Your task to perform on an android device: Do I have any events this weekend? Image 0: 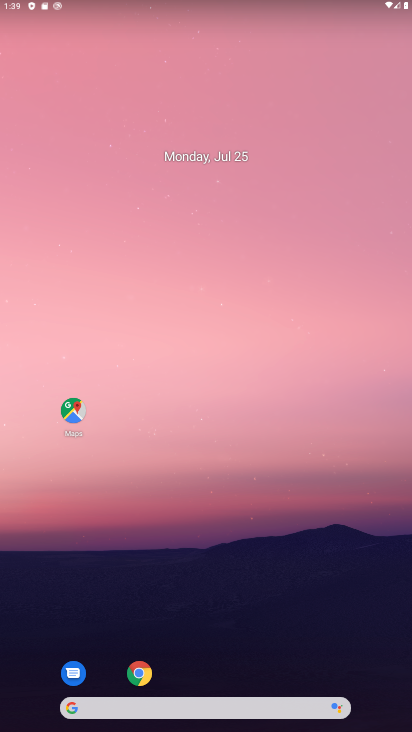
Step 0: click (219, 160)
Your task to perform on an android device: Do I have any events this weekend? Image 1: 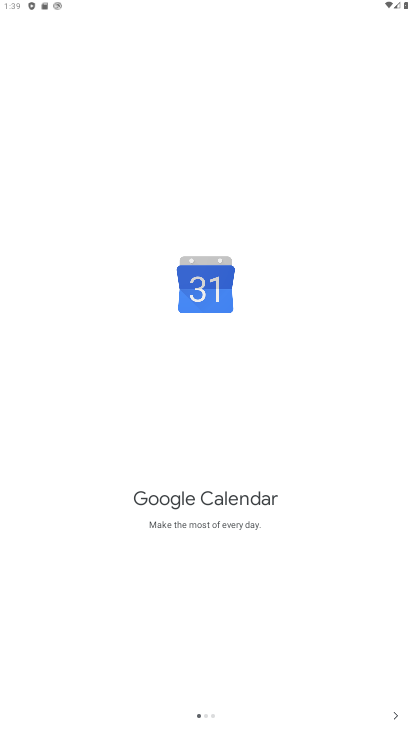
Step 1: click (392, 712)
Your task to perform on an android device: Do I have any events this weekend? Image 2: 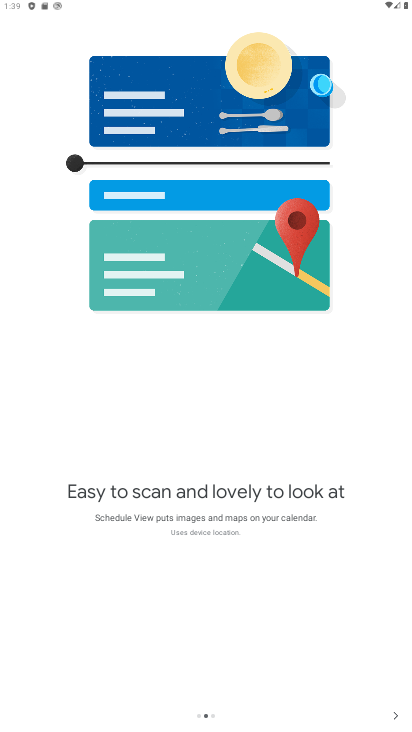
Step 2: click (392, 712)
Your task to perform on an android device: Do I have any events this weekend? Image 3: 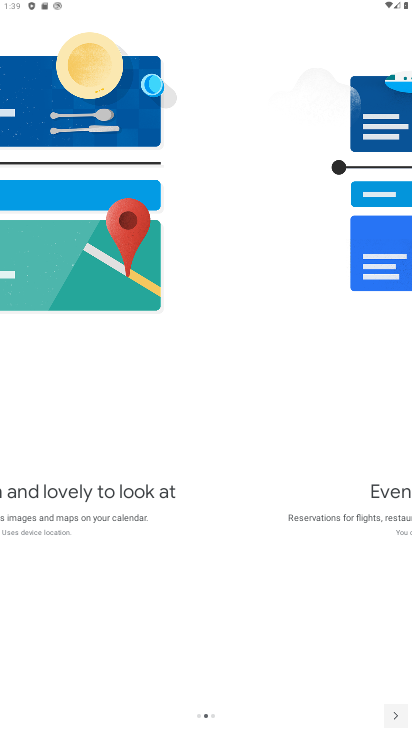
Step 3: click (392, 712)
Your task to perform on an android device: Do I have any events this weekend? Image 4: 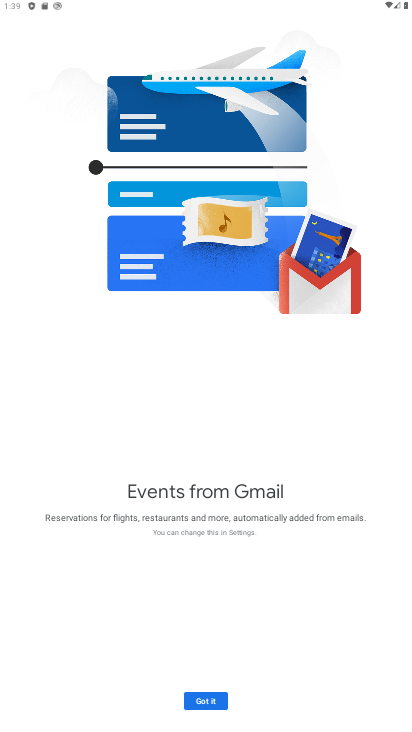
Step 4: click (392, 712)
Your task to perform on an android device: Do I have any events this weekend? Image 5: 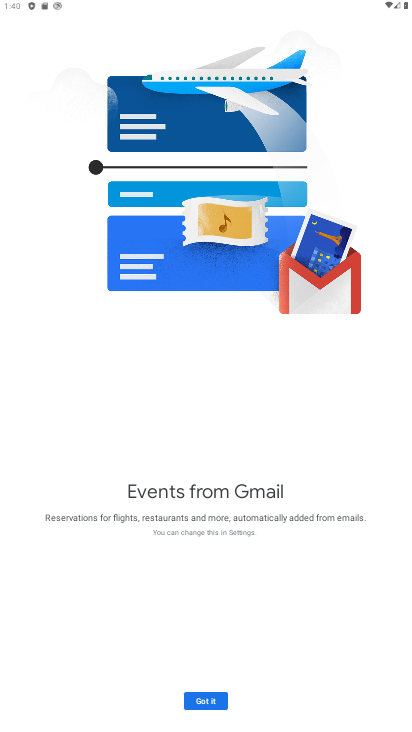
Step 5: click (198, 699)
Your task to perform on an android device: Do I have any events this weekend? Image 6: 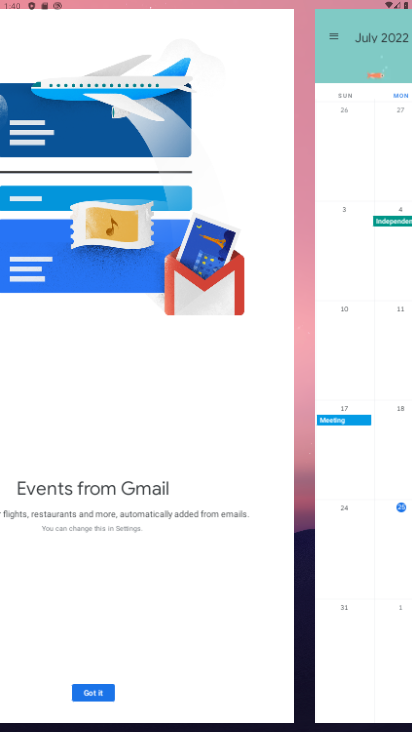
Step 6: click (198, 699)
Your task to perform on an android device: Do I have any events this weekend? Image 7: 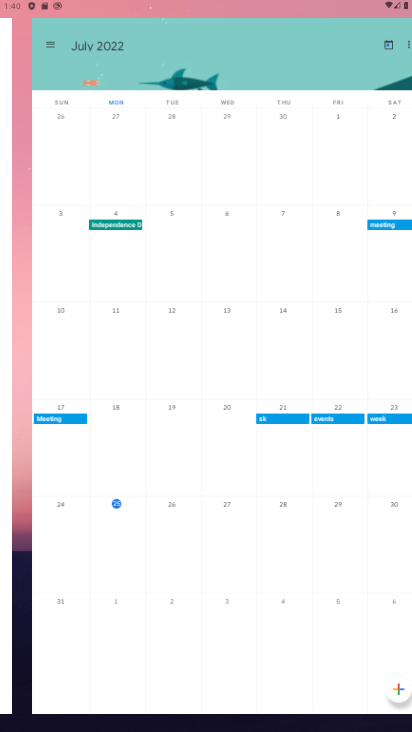
Step 7: click (198, 699)
Your task to perform on an android device: Do I have any events this weekend? Image 8: 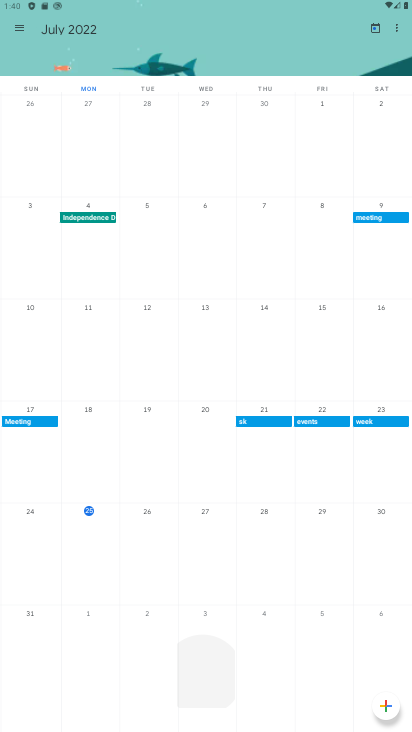
Step 8: click (198, 699)
Your task to perform on an android device: Do I have any events this weekend? Image 9: 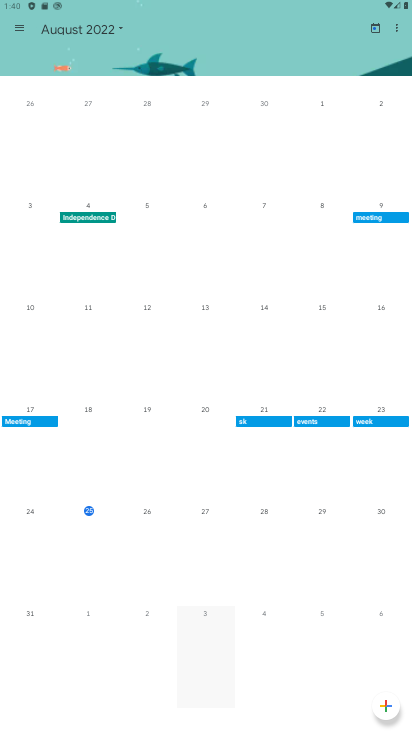
Step 9: click (198, 699)
Your task to perform on an android device: Do I have any events this weekend? Image 10: 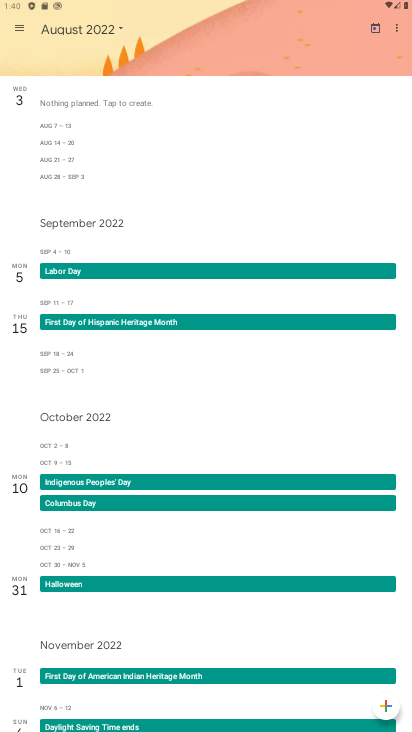
Step 10: click (6, 33)
Your task to perform on an android device: Do I have any events this weekend? Image 11: 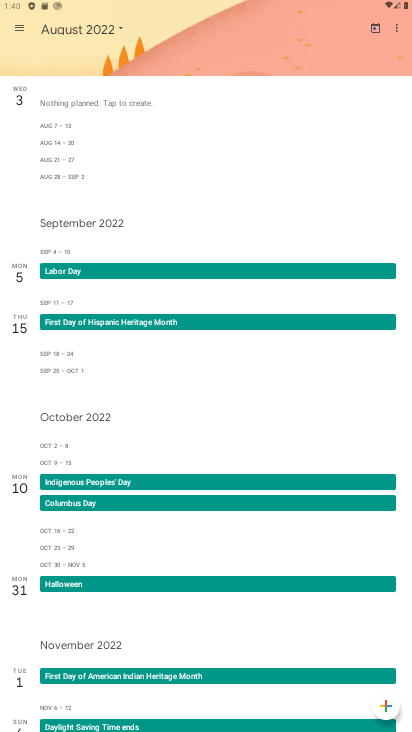
Step 11: task complete